Your task to perform on an android device: set the stopwatch Image 0: 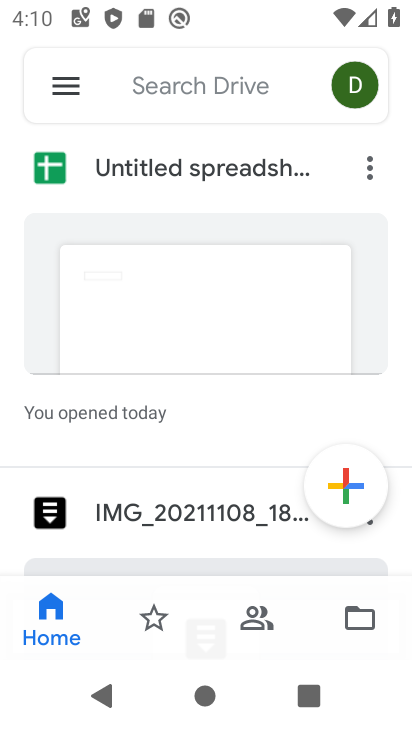
Step 0: press home button
Your task to perform on an android device: set the stopwatch Image 1: 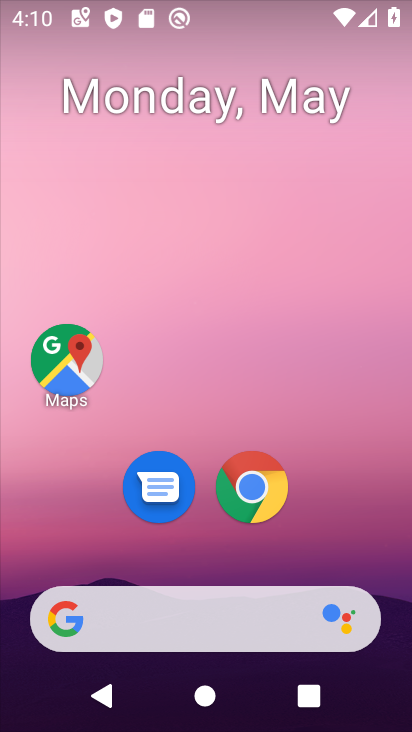
Step 1: drag from (193, 520) to (189, 272)
Your task to perform on an android device: set the stopwatch Image 2: 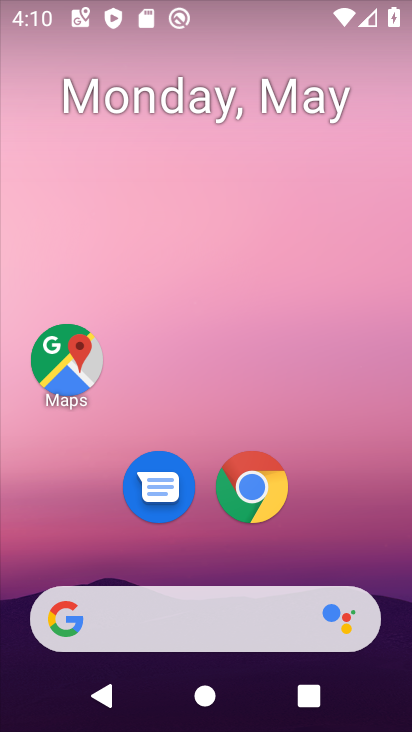
Step 2: drag from (208, 559) to (183, 288)
Your task to perform on an android device: set the stopwatch Image 3: 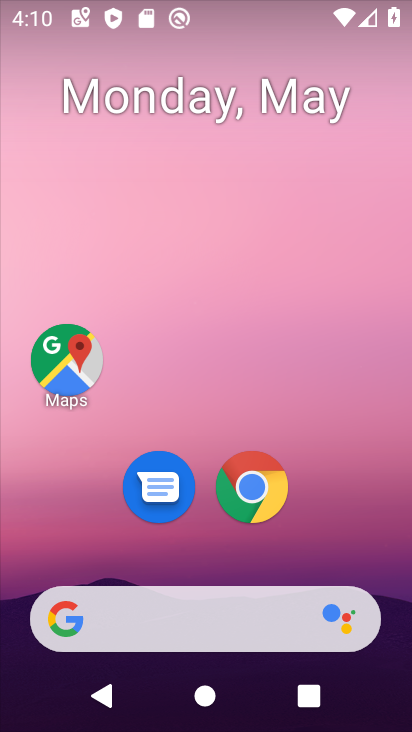
Step 3: drag from (191, 570) to (176, 270)
Your task to perform on an android device: set the stopwatch Image 4: 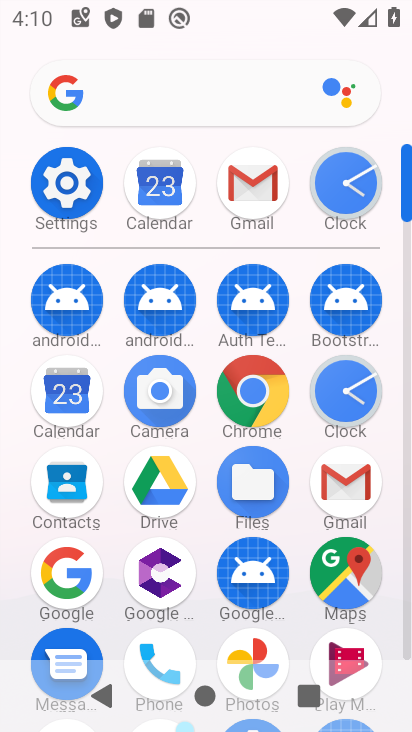
Step 4: click (363, 392)
Your task to perform on an android device: set the stopwatch Image 5: 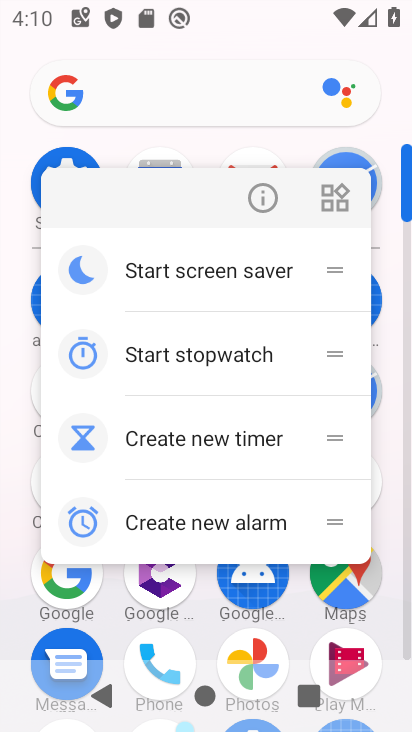
Step 5: click (219, 42)
Your task to perform on an android device: set the stopwatch Image 6: 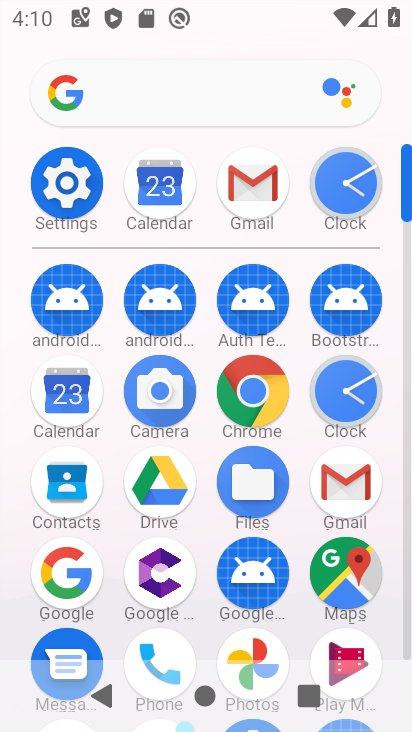
Step 6: click (345, 399)
Your task to perform on an android device: set the stopwatch Image 7: 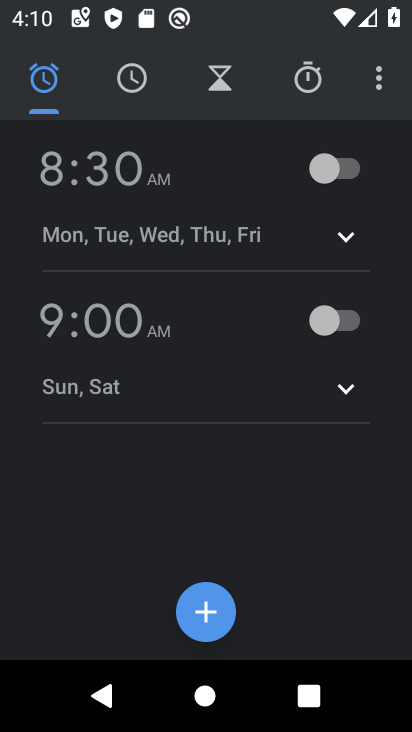
Step 7: click (292, 87)
Your task to perform on an android device: set the stopwatch Image 8: 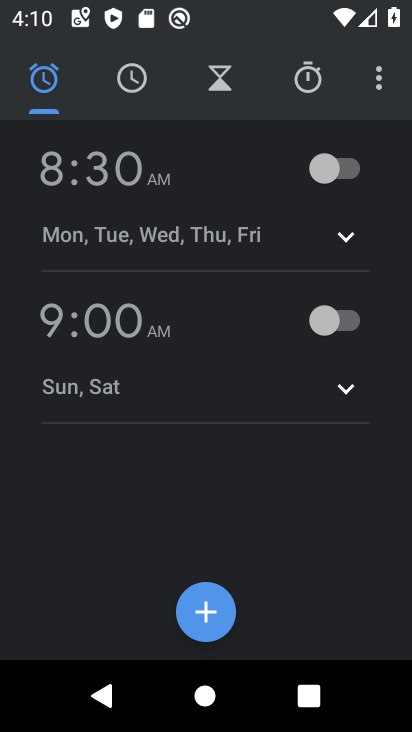
Step 8: click (312, 94)
Your task to perform on an android device: set the stopwatch Image 9: 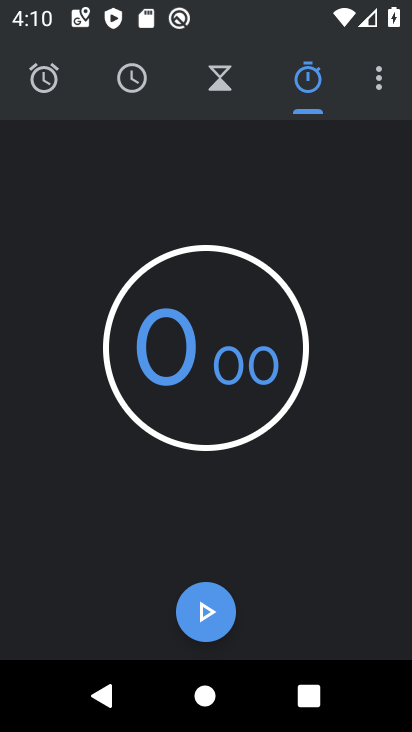
Step 9: click (224, 348)
Your task to perform on an android device: set the stopwatch Image 10: 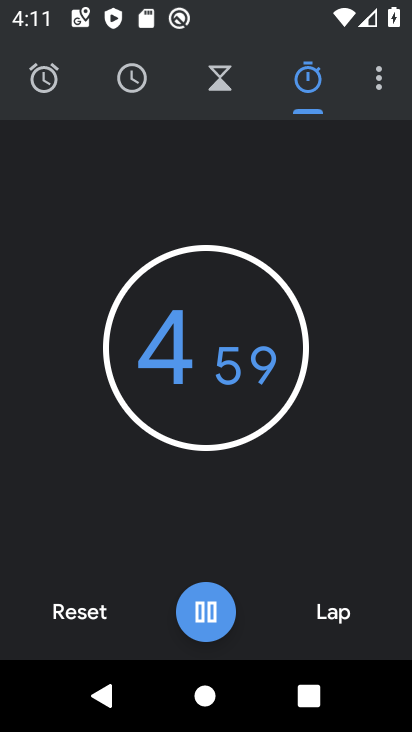
Step 10: click (199, 618)
Your task to perform on an android device: set the stopwatch Image 11: 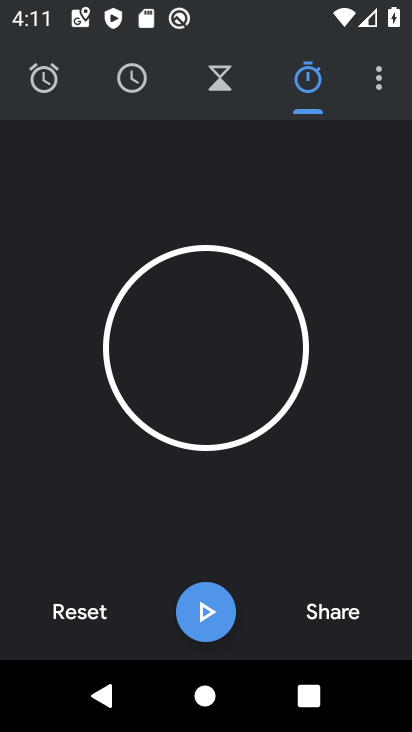
Step 11: task complete